Your task to perform on an android device: move a message to another label in the gmail app Image 0: 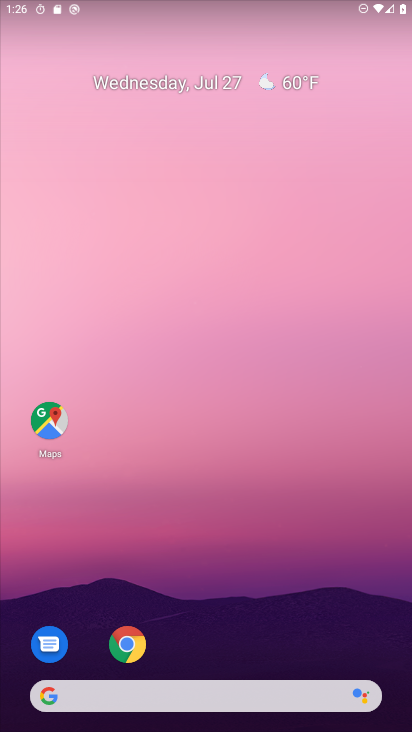
Step 0: drag from (200, 649) to (185, 258)
Your task to perform on an android device: move a message to another label in the gmail app Image 1: 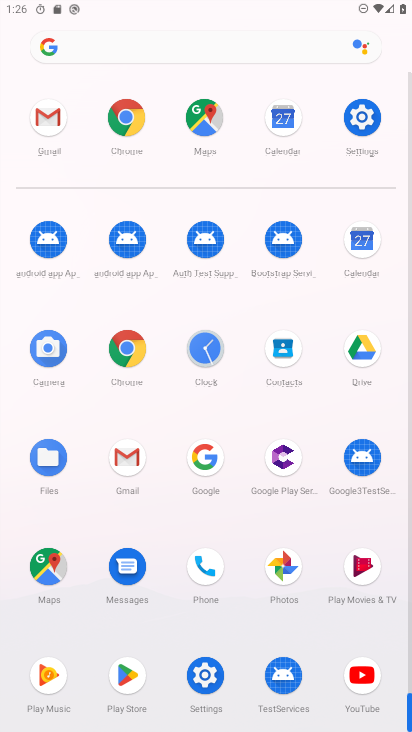
Step 1: click (125, 455)
Your task to perform on an android device: move a message to another label in the gmail app Image 2: 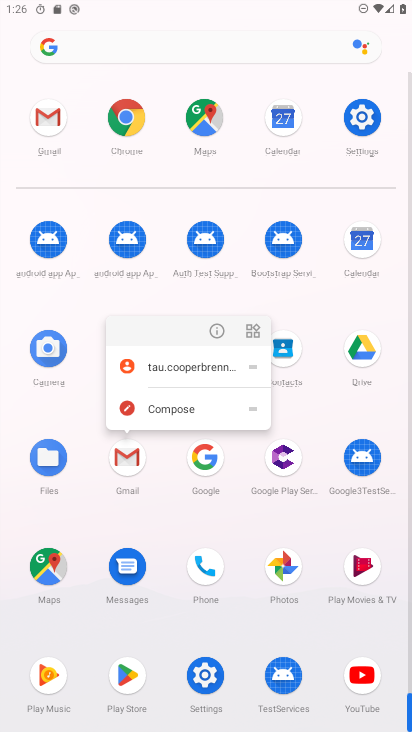
Step 2: click (220, 331)
Your task to perform on an android device: move a message to another label in the gmail app Image 3: 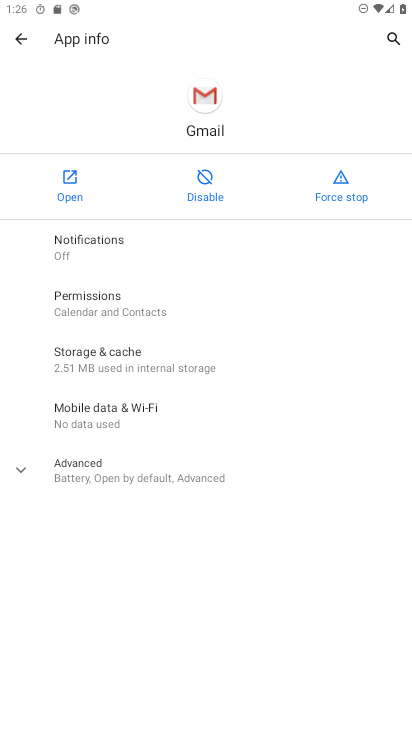
Step 3: click (61, 189)
Your task to perform on an android device: move a message to another label in the gmail app Image 4: 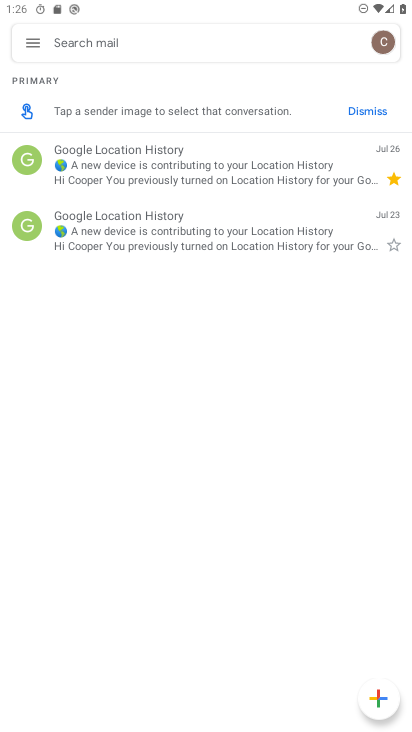
Step 4: click (41, 51)
Your task to perform on an android device: move a message to another label in the gmail app Image 5: 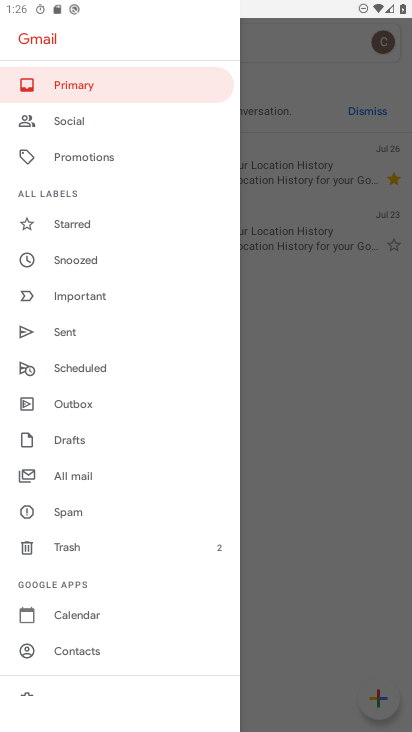
Step 5: drag from (62, 634) to (176, 76)
Your task to perform on an android device: move a message to another label in the gmail app Image 6: 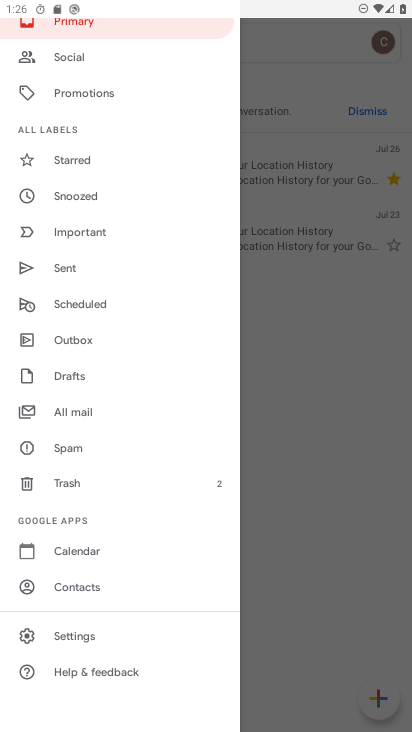
Step 6: drag from (117, 637) to (206, 241)
Your task to perform on an android device: move a message to another label in the gmail app Image 7: 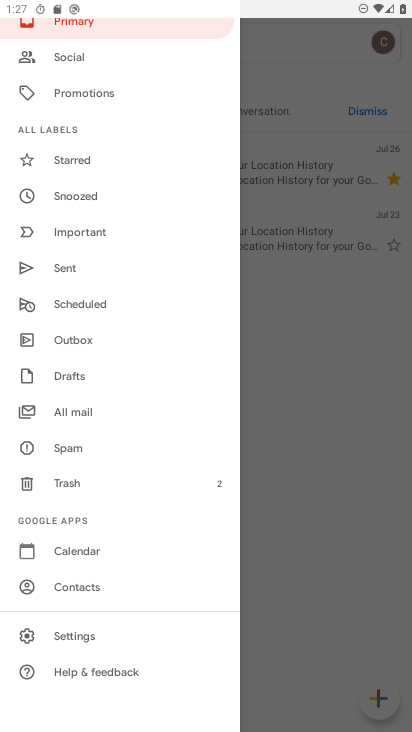
Step 7: drag from (73, 618) to (119, 215)
Your task to perform on an android device: move a message to another label in the gmail app Image 8: 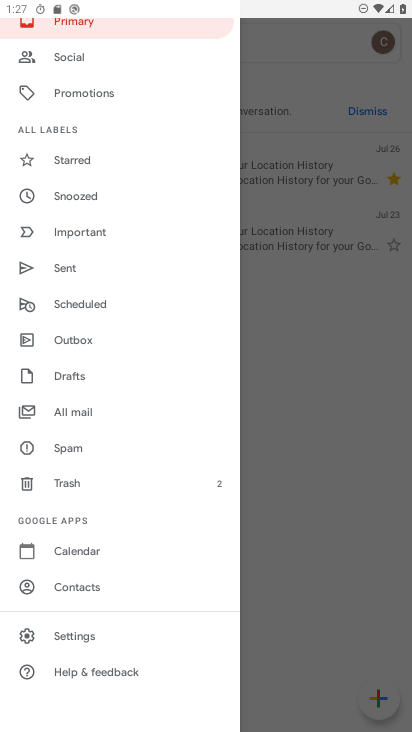
Step 8: drag from (67, 392) to (152, 107)
Your task to perform on an android device: move a message to another label in the gmail app Image 9: 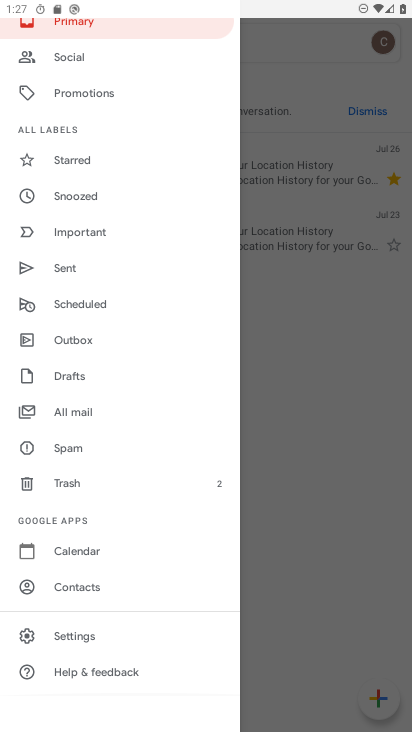
Step 9: drag from (149, 116) to (149, 712)
Your task to perform on an android device: move a message to another label in the gmail app Image 10: 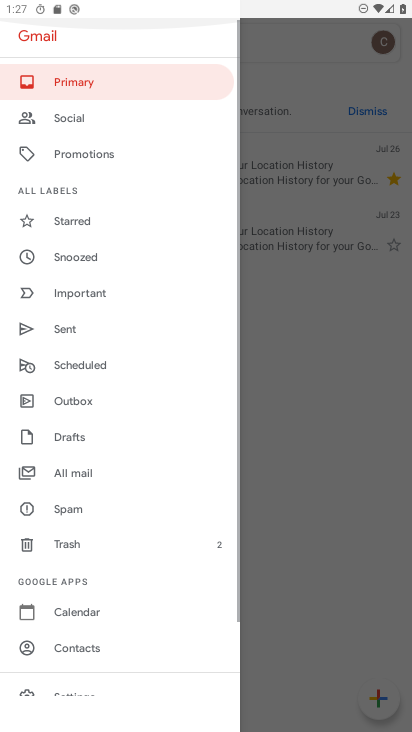
Step 10: drag from (116, 591) to (166, 98)
Your task to perform on an android device: move a message to another label in the gmail app Image 11: 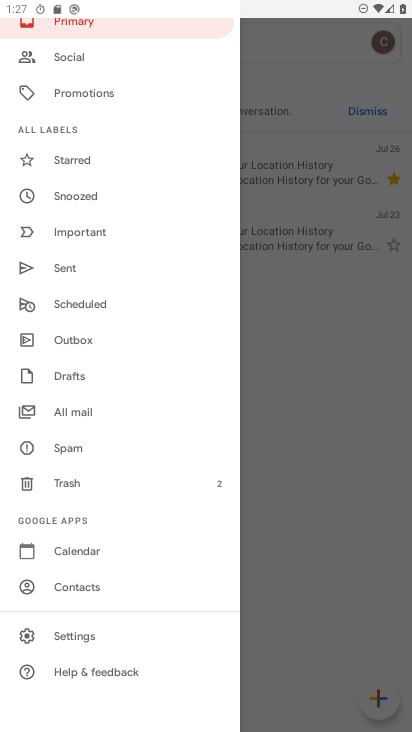
Step 11: drag from (144, 158) to (205, 719)
Your task to perform on an android device: move a message to another label in the gmail app Image 12: 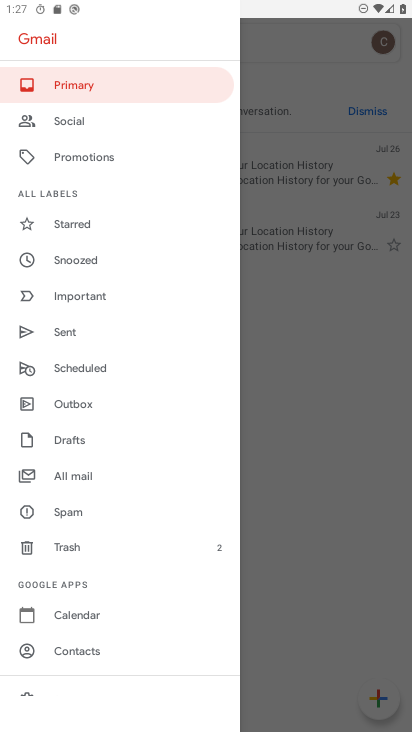
Step 12: click (114, 78)
Your task to perform on an android device: move a message to another label in the gmail app Image 13: 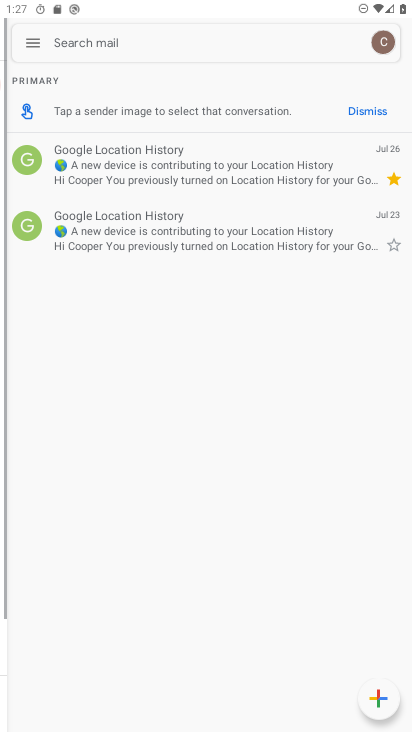
Step 13: click (291, 386)
Your task to perform on an android device: move a message to another label in the gmail app Image 14: 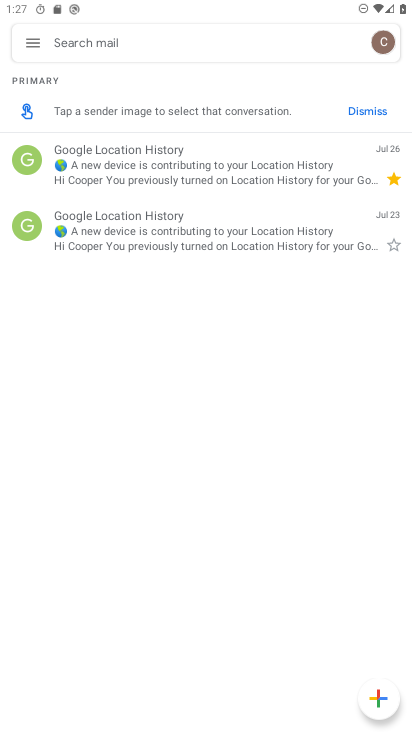
Step 14: drag from (235, 299) to (293, 66)
Your task to perform on an android device: move a message to another label in the gmail app Image 15: 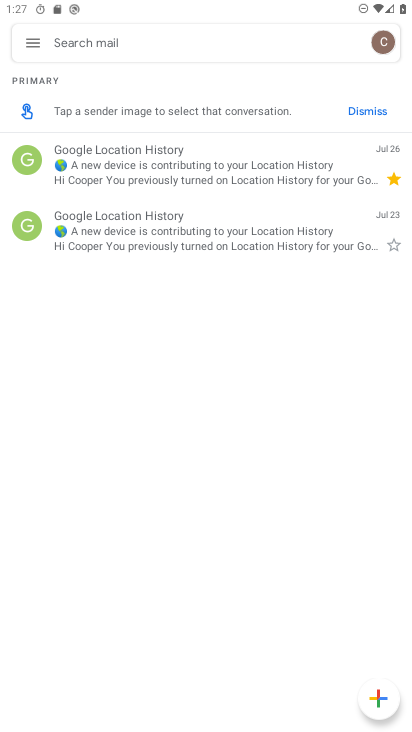
Step 15: click (234, 509)
Your task to perform on an android device: move a message to another label in the gmail app Image 16: 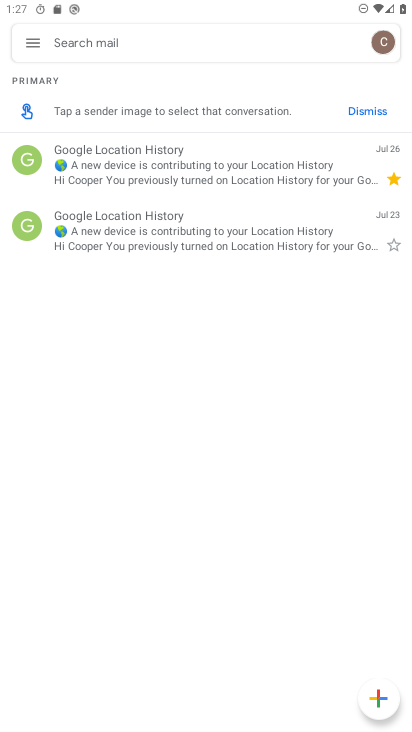
Step 16: drag from (259, 150) to (235, 663)
Your task to perform on an android device: move a message to another label in the gmail app Image 17: 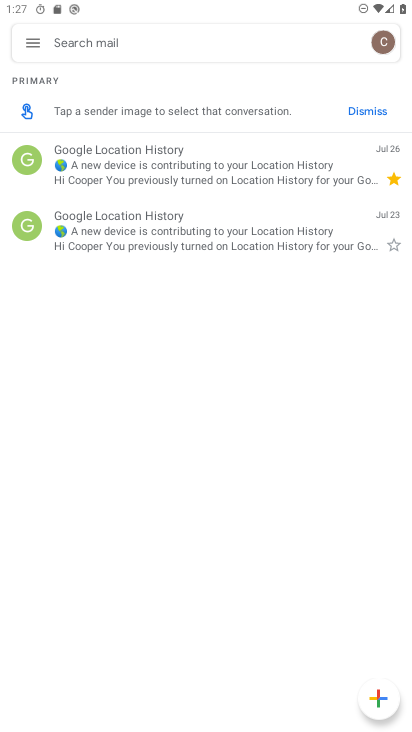
Step 17: drag from (249, 269) to (216, 645)
Your task to perform on an android device: move a message to another label in the gmail app Image 18: 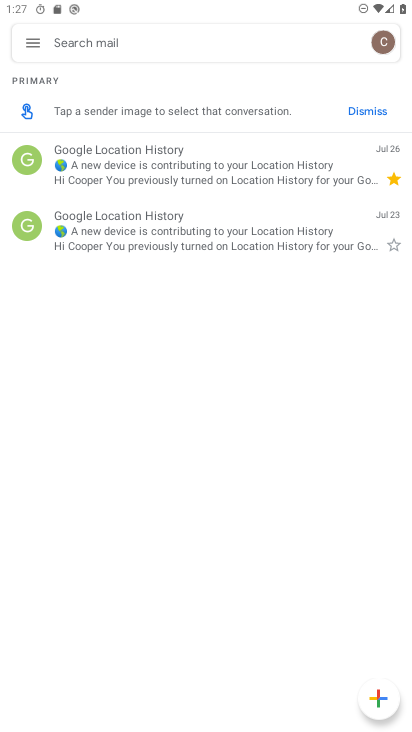
Step 18: drag from (324, 455) to (292, 729)
Your task to perform on an android device: move a message to another label in the gmail app Image 19: 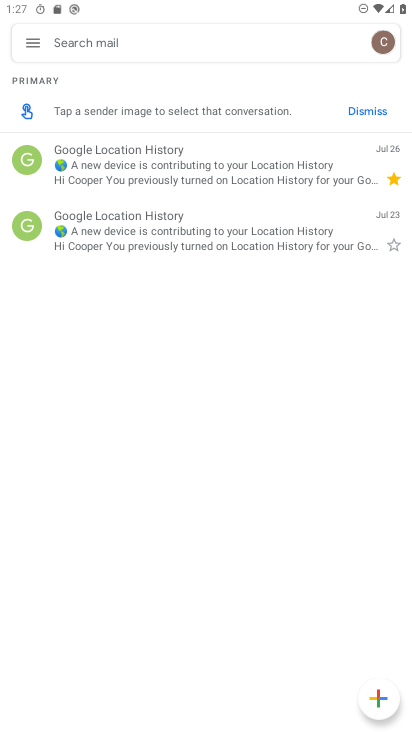
Step 19: drag from (182, 345) to (244, 570)
Your task to perform on an android device: move a message to another label in the gmail app Image 20: 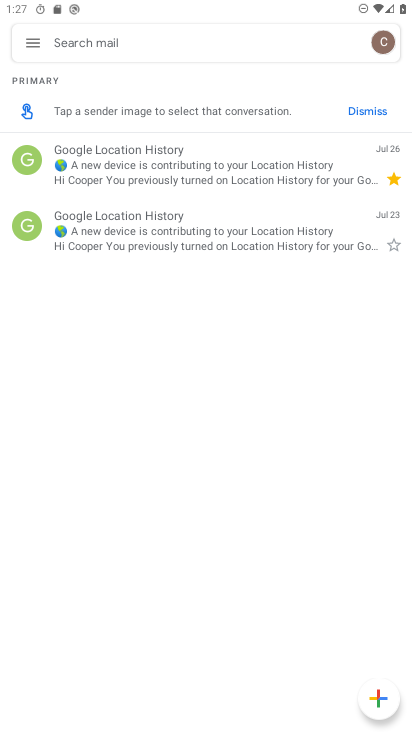
Step 20: click (318, 161)
Your task to perform on an android device: move a message to another label in the gmail app Image 21: 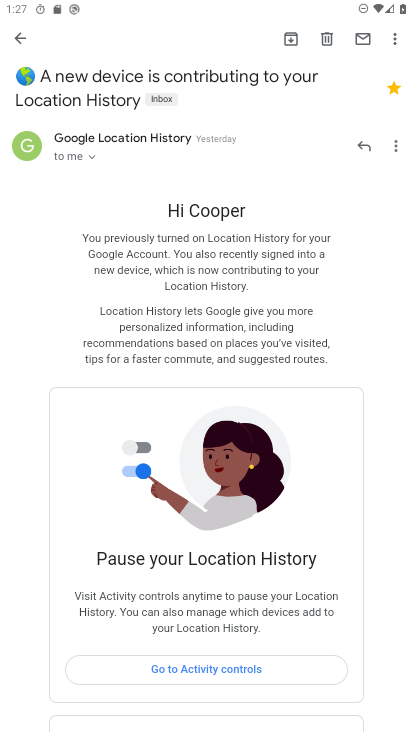
Step 21: click (394, 92)
Your task to perform on an android device: move a message to another label in the gmail app Image 22: 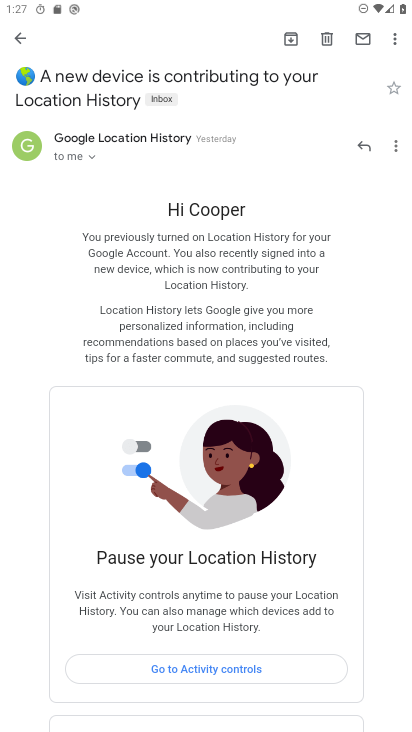
Step 22: task complete